Your task to perform on an android device: What's the weather going to be this weekend? Image 0: 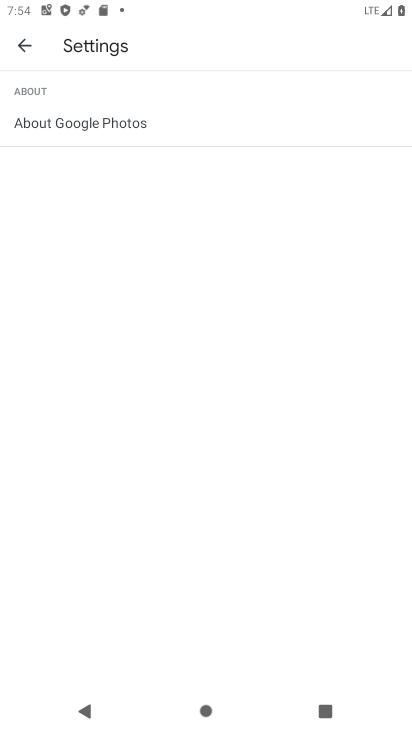
Step 0: press back button
Your task to perform on an android device: What's the weather going to be this weekend? Image 1: 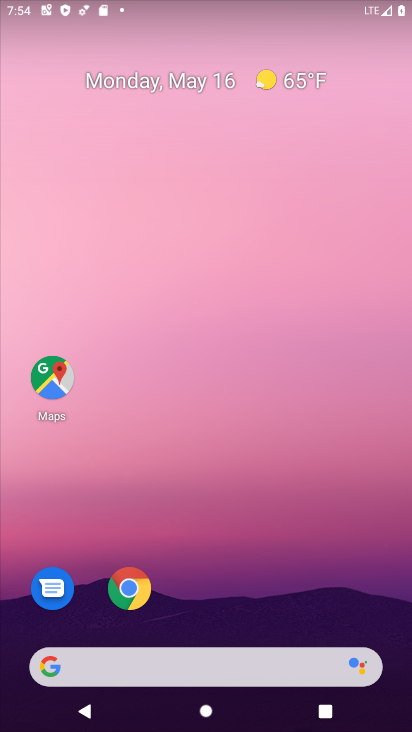
Step 1: drag from (262, 570) to (221, 1)
Your task to perform on an android device: What's the weather going to be this weekend? Image 2: 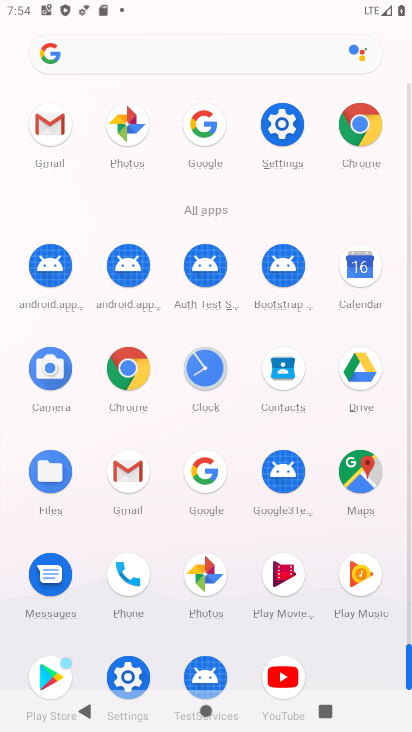
Step 2: drag from (8, 575) to (9, 326)
Your task to perform on an android device: What's the weather going to be this weekend? Image 3: 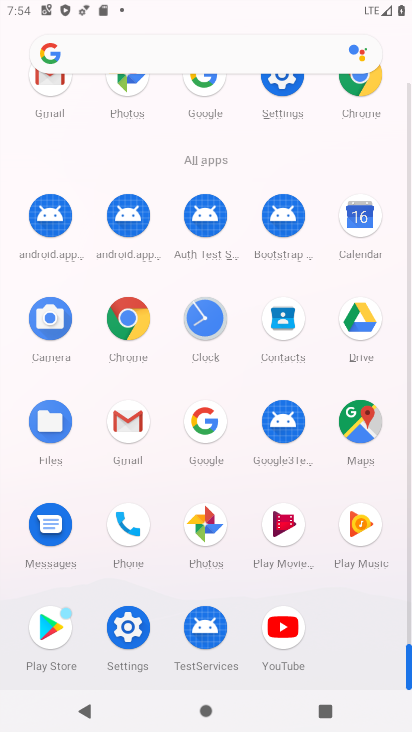
Step 3: click (125, 316)
Your task to perform on an android device: What's the weather going to be this weekend? Image 4: 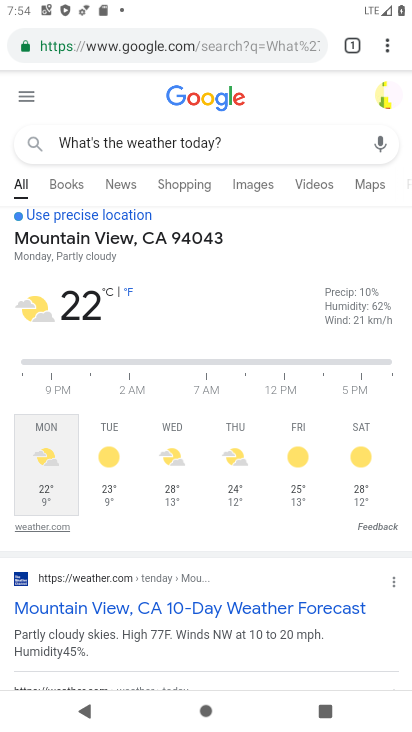
Step 4: click (243, 45)
Your task to perform on an android device: What's the weather going to be this weekend? Image 5: 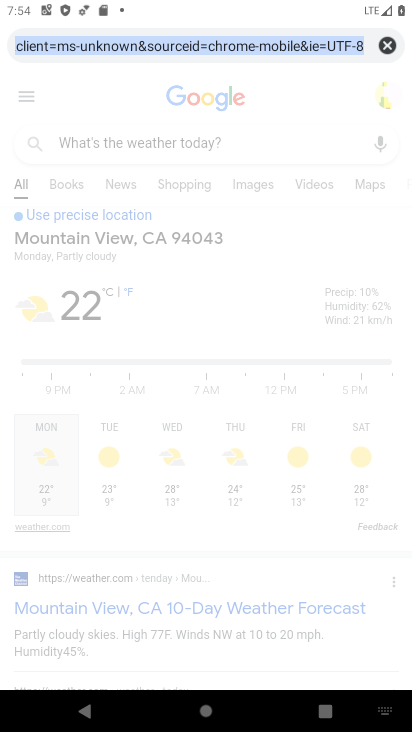
Step 5: click (381, 41)
Your task to perform on an android device: What's the weather going to be this weekend? Image 6: 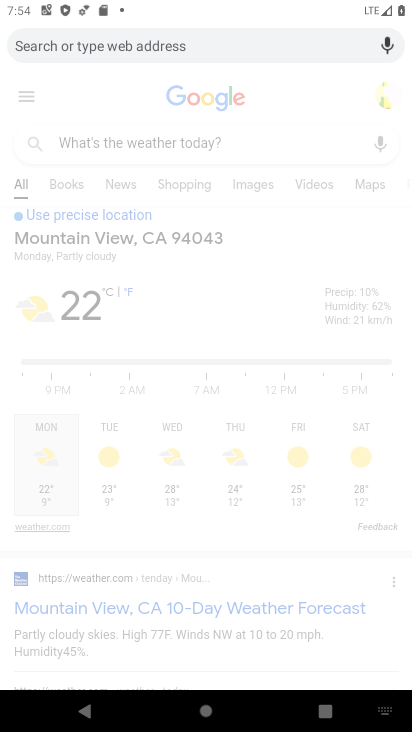
Step 6: type "What's the weather going to be this weekend?"
Your task to perform on an android device: What's the weather going to be this weekend? Image 7: 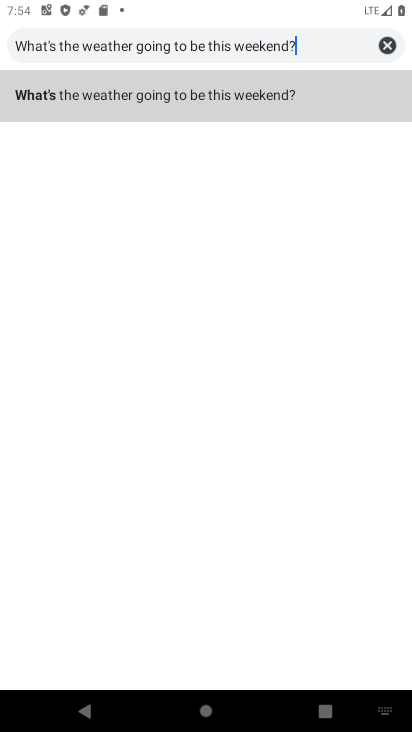
Step 7: type ""
Your task to perform on an android device: What's the weather going to be this weekend? Image 8: 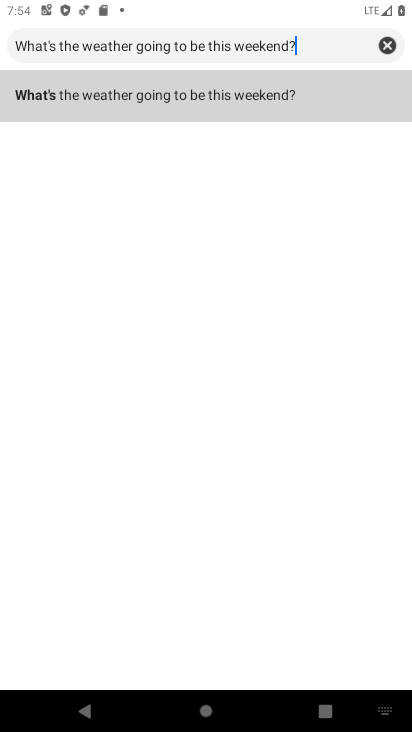
Step 8: click (151, 99)
Your task to perform on an android device: What's the weather going to be this weekend? Image 9: 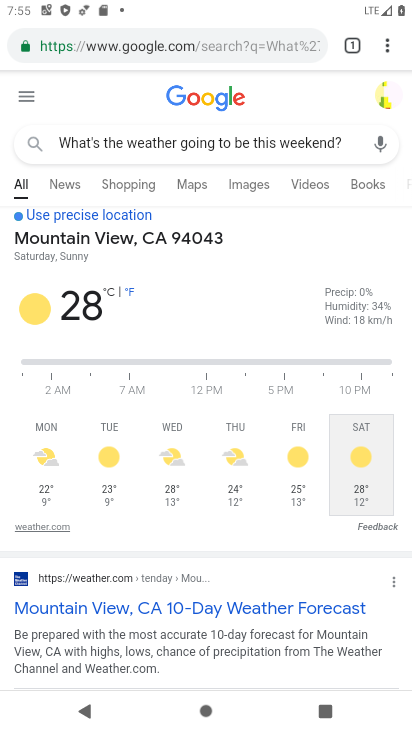
Step 9: task complete